Your task to perform on an android device: Go to display settings Image 0: 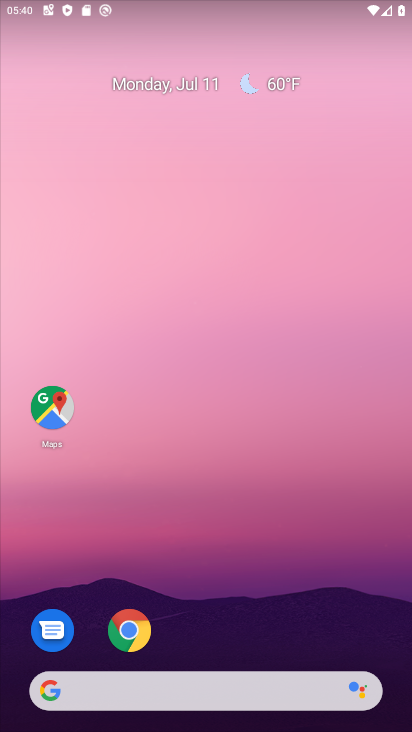
Step 0: drag from (192, 632) to (201, 0)
Your task to perform on an android device: Go to display settings Image 1: 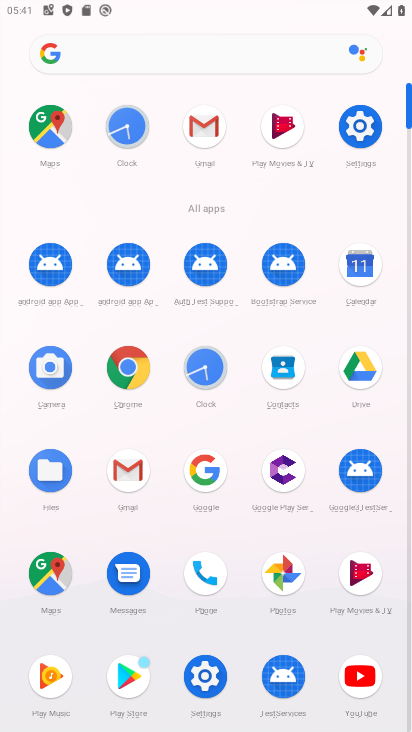
Step 1: click (355, 127)
Your task to perform on an android device: Go to display settings Image 2: 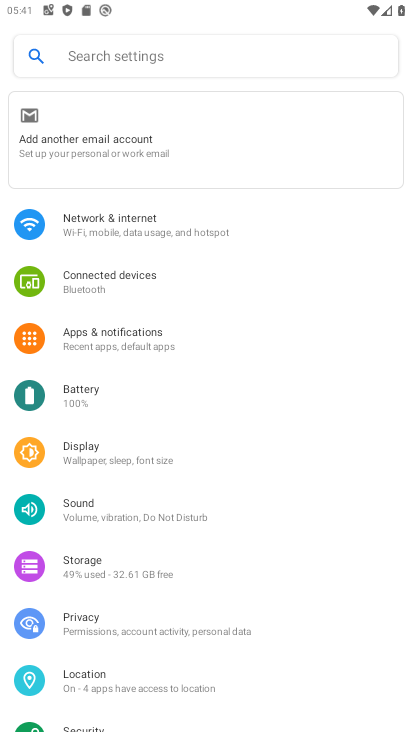
Step 2: click (62, 451)
Your task to perform on an android device: Go to display settings Image 3: 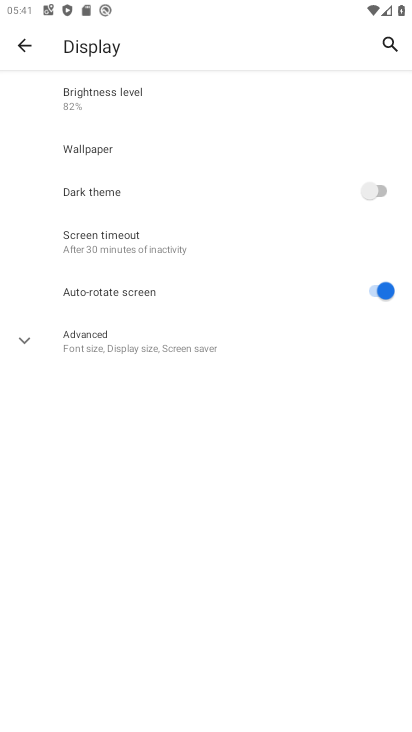
Step 3: task complete